Your task to perform on an android device: open wifi settings Image 0: 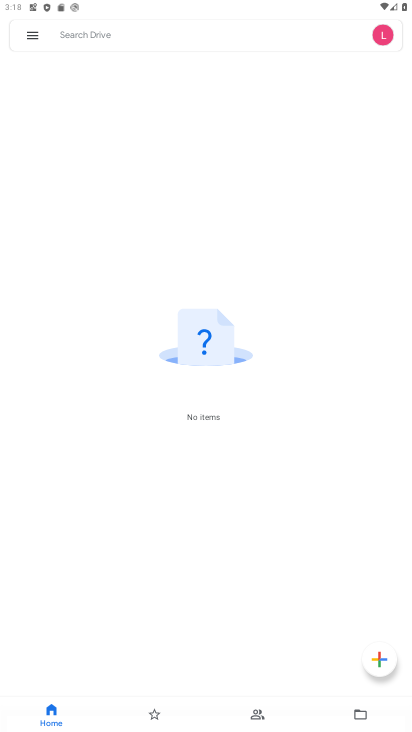
Step 0: drag from (42, 636) to (180, 212)
Your task to perform on an android device: open wifi settings Image 1: 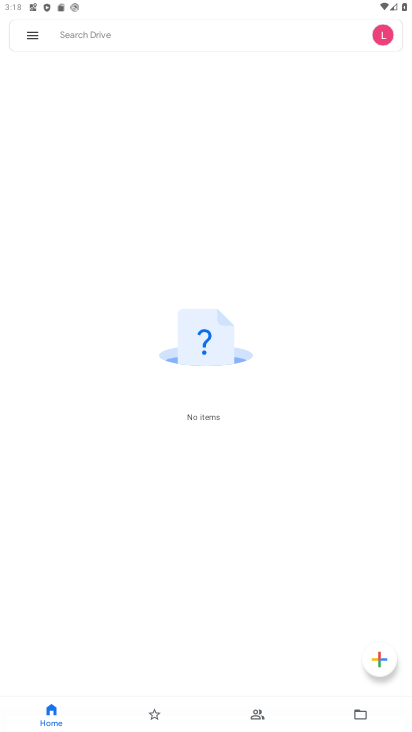
Step 1: press home button
Your task to perform on an android device: open wifi settings Image 2: 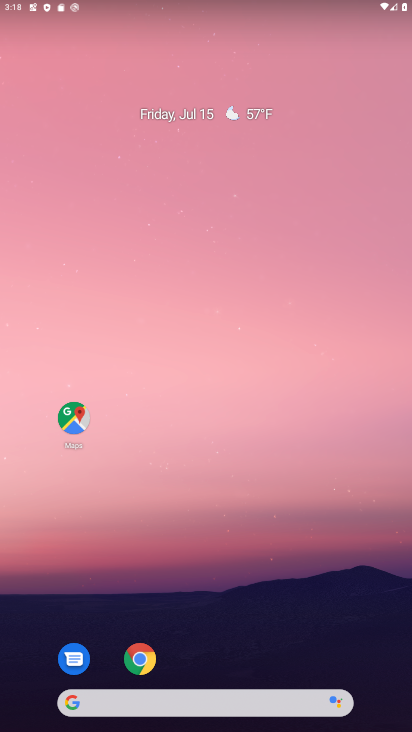
Step 2: drag from (21, 685) to (272, 64)
Your task to perform on an android device: open wifi settings Image 3: 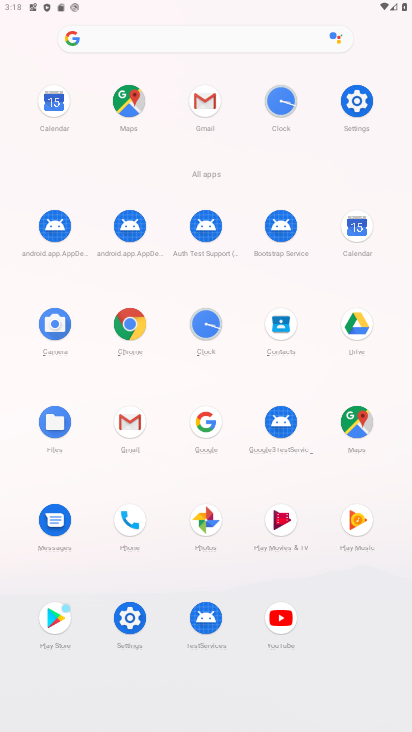
Step 3: click (141, 619)
Your task to perform on an android device: open wifi settings Image 4: 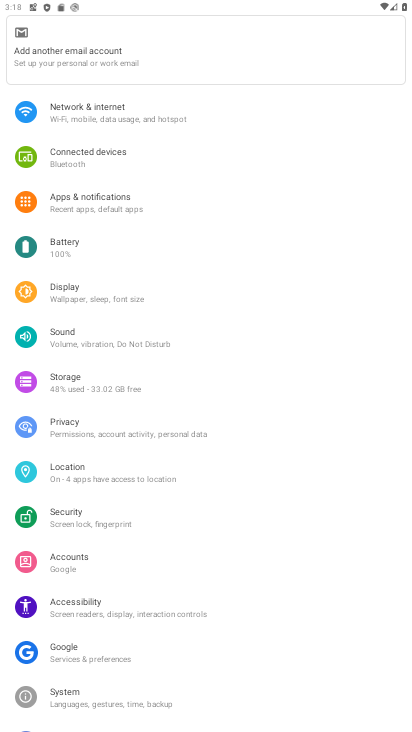
Step 4: click (100, 113)
Your task to perform on an android device: open wifi settings Image 5: 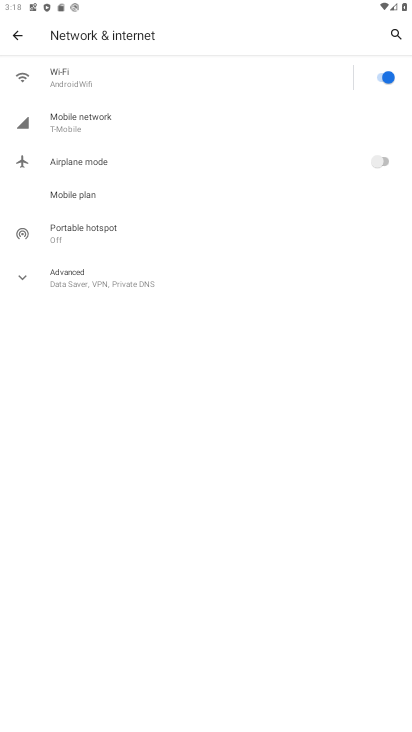
Step 5: click (84, 79)
Your task to perform on an android device: open wifi settings Image 6: 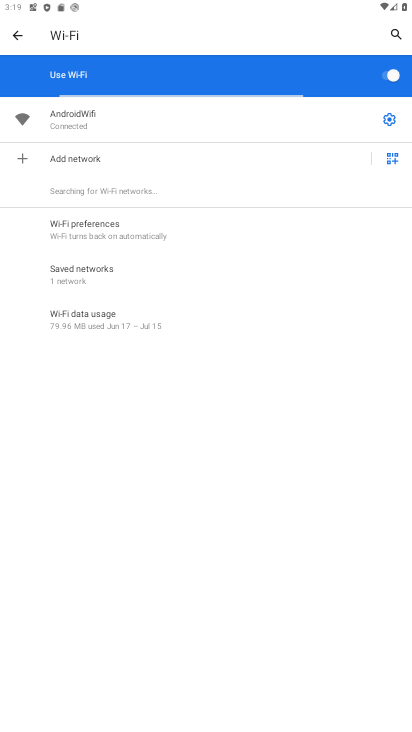
Step 6: task complete